Your task to perform on an android device: turn off sleep mode Image 0: 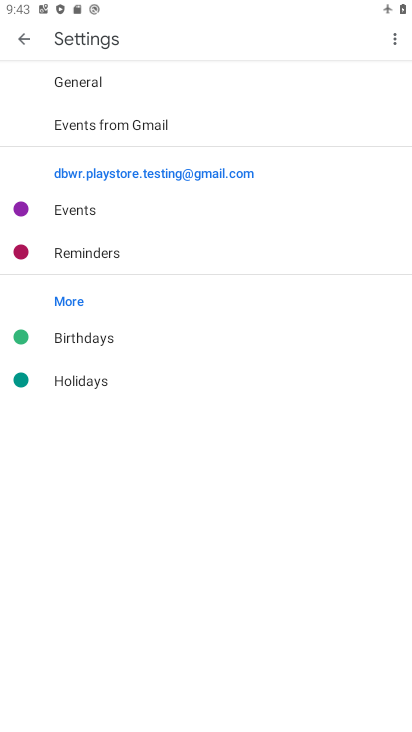
Step 0: press home button
Your task to perform on an android device: turn off sleep mode Image 1: 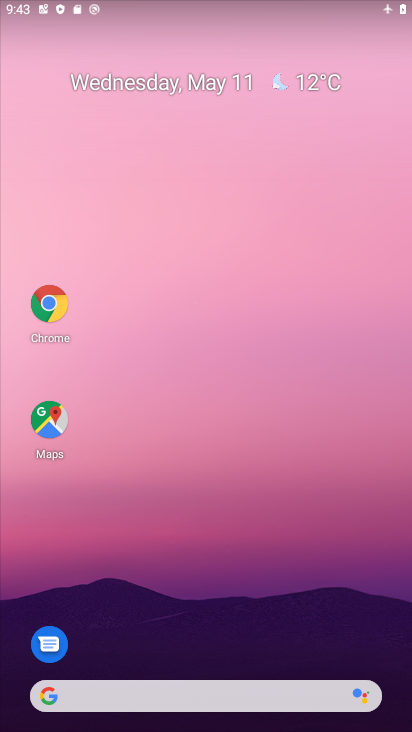
Step 1: drag from (174, 623) to (152, 177)
Your task to perform on an android device: turn off sleep mode Image 2: 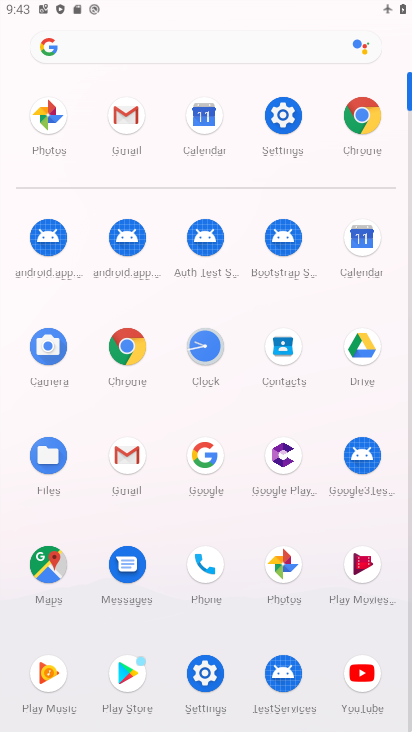
Step 2: click (288, 121)
Your task to perform on an android device: turn off sleep mode Image 3: 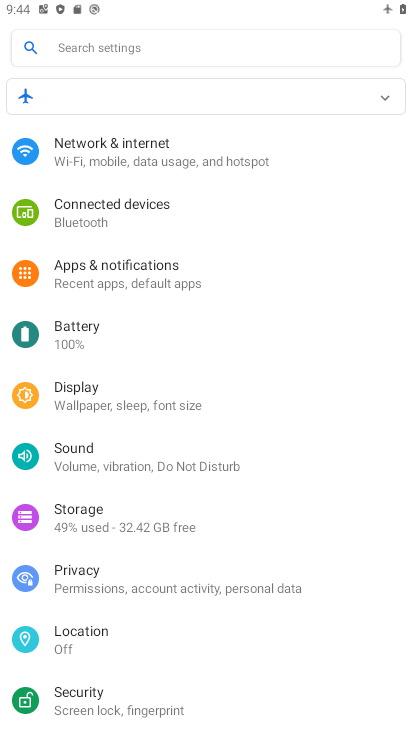
Step 3: click (169, 404)
Your task to perform on an android device: turn off sleep mode Image 4: 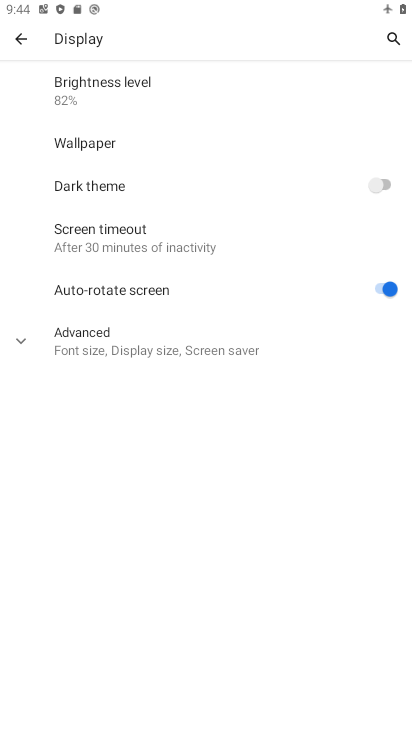
Step 4: click (176, 350)
Your task to perform on an android device: turn off sleep mode Image 5: 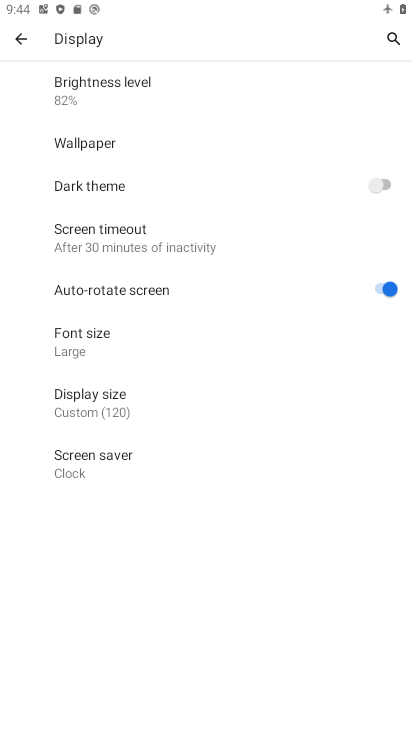
Step 5: task complete